Your task to perform on an android device: toggle translation in the chrome app Image 0: 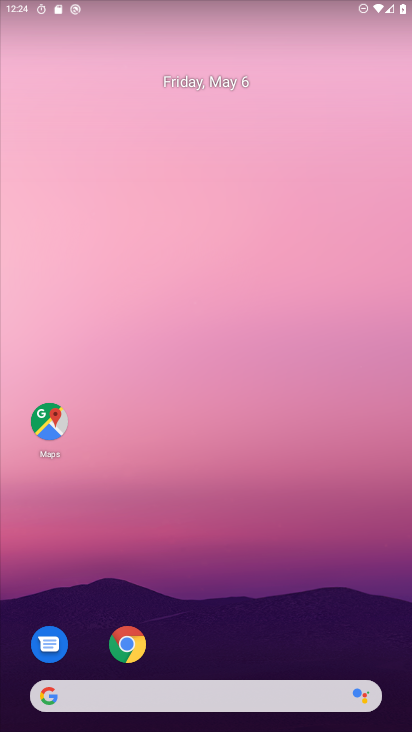
Step 0: drag from (391, 634) to (372, 78)
Your task to perform on an android device: toggle translation in the chrome app Image 1: 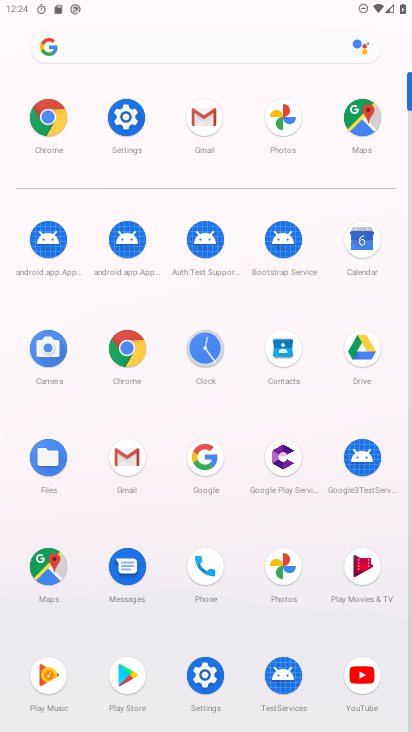
Step 1: click (138, 349)
Your task to perform on an android device: toggle translation in the chrome app Image 2: 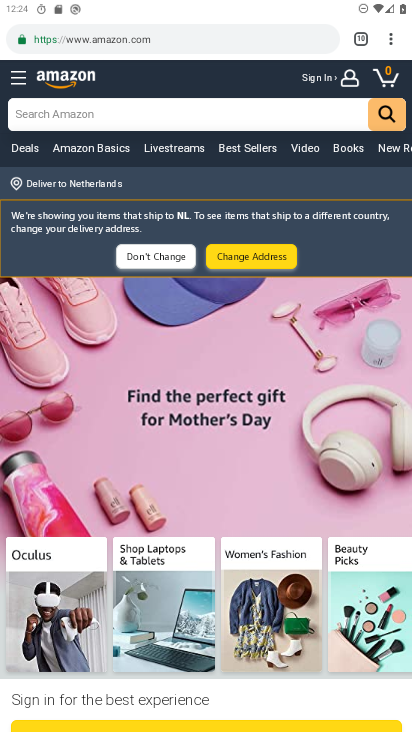
Step 2: click (390, 38)
Your task to perform on an android device: toggle translation in the chrome app Image 3: 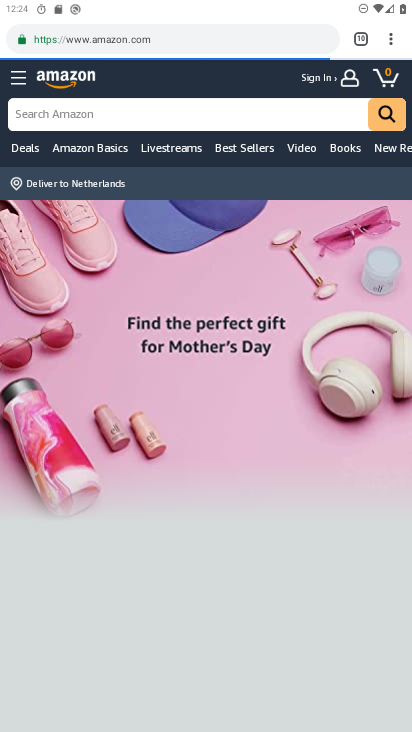
Step 3: drag from (391, 40) to (283, 433)
Your task to perform on an android device: toggle translation in the chrome app Image 4: 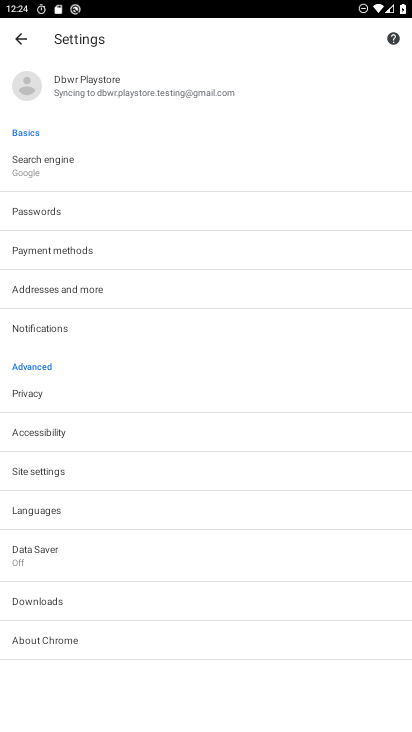
Step 4: click (121, 513)
Your task to perform on an android device: toggle translation in the chrome app Image 5: 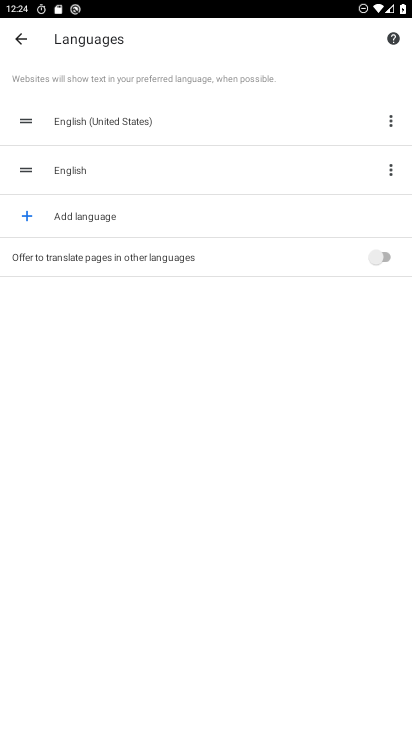
Step 5: click (384, 258)
Your task to perform on an android device: toggle translation in the chrome app Image 6: 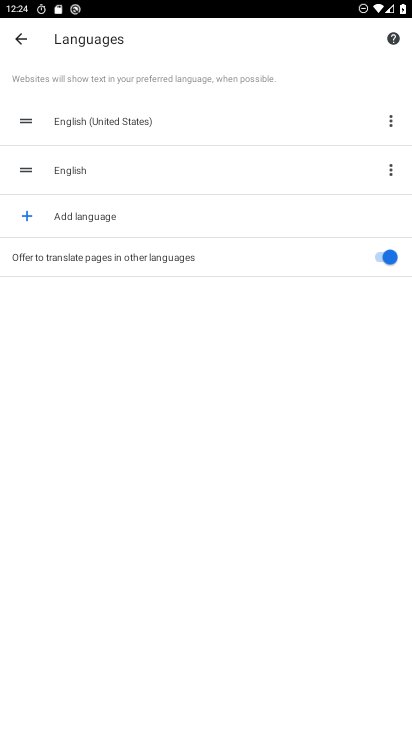
Step 6: task complete